Your task to perform on an android device: toggle notifications settings in the gmail app Image 0: 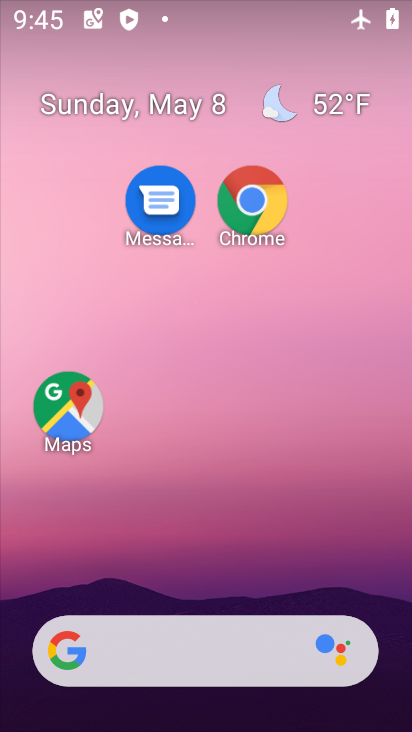
Step 0: drag from (205, 609) to (148, 35)
Your task to perform on an android device: toggle notifications settings in the gmail app Image 1: 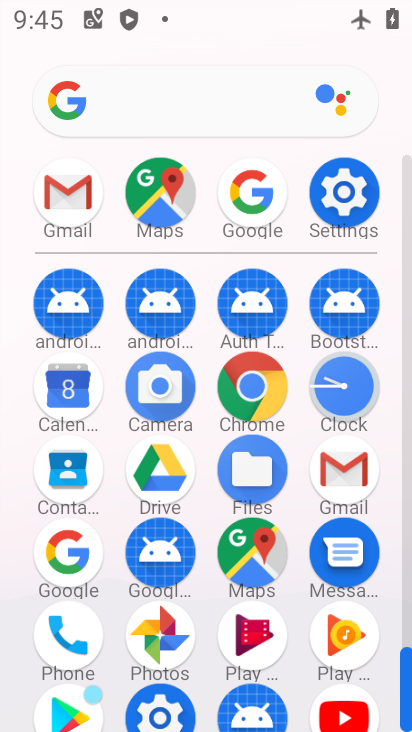
Step 1: click (351, 457)
Your task to perform on an android device: toggle notifications settings in the gmail app Image 2: 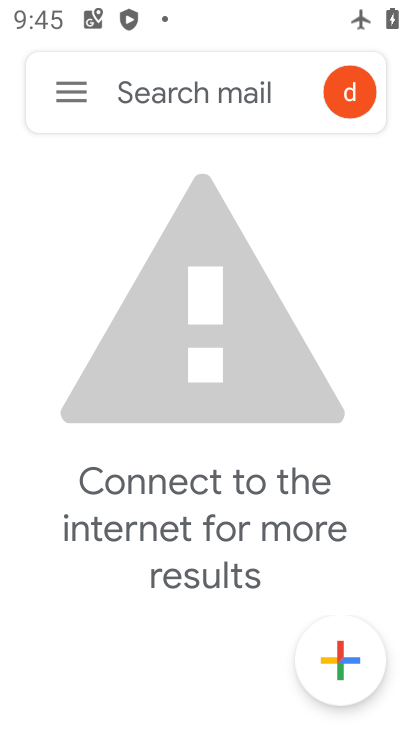
Step 2: click (58, 78)
Your task to perform on an android device: toggle notifications settings in the gmail app Image 3: 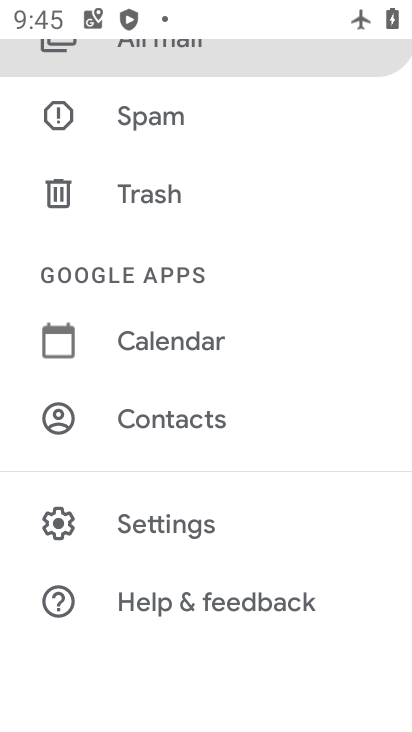
Step 3: click (162, 516)
Your task to perform on an android device: toggle notifications settings in the gmail app Image 4: 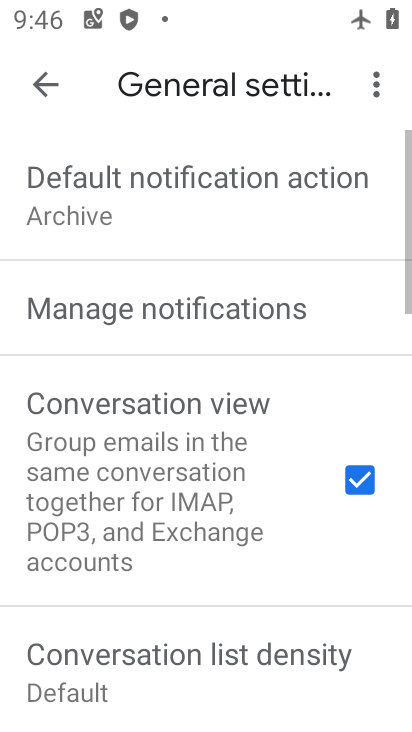
Step 4: click (68, 338)
Your task to perform on an android device: toggle notifications settings in the gmail app Image 5: 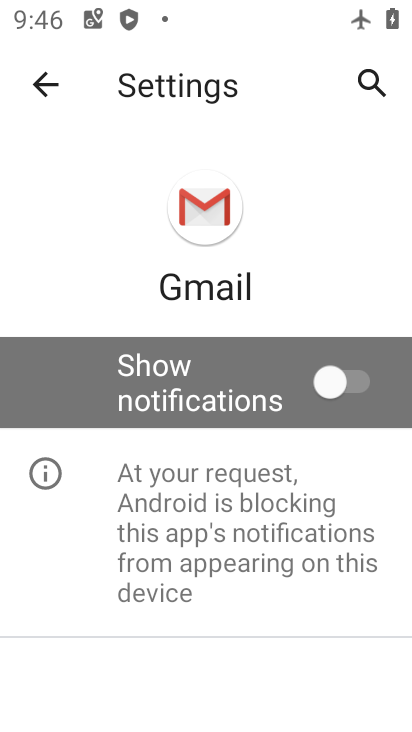
Step 5: click (344, 376)
Your task to perform on an android device: toggle notifications settings in the gmail app Image 6: 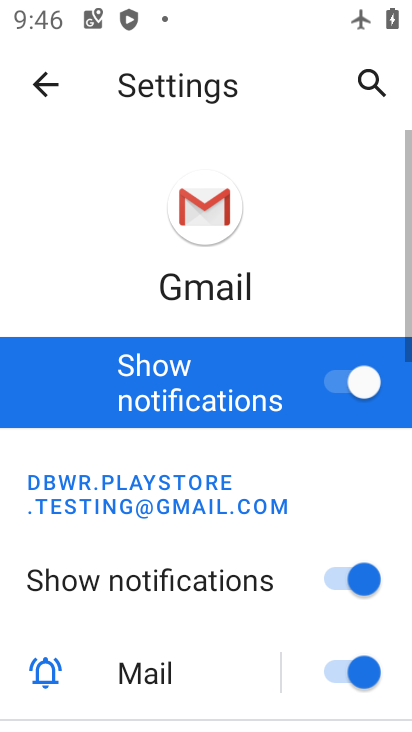
Step 6: task complete